Your task to perform on an android device: Open privacy settings Image 0: 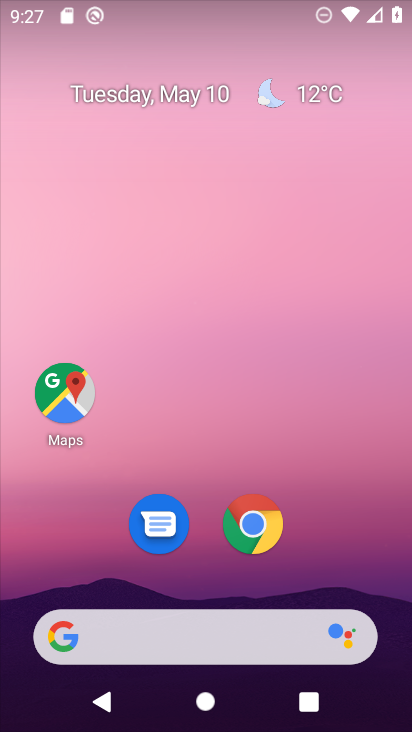
Step 0: drag from (326, 540) to (364, 60)
Your task to perform on an android device: Open privacy settings Image 1: 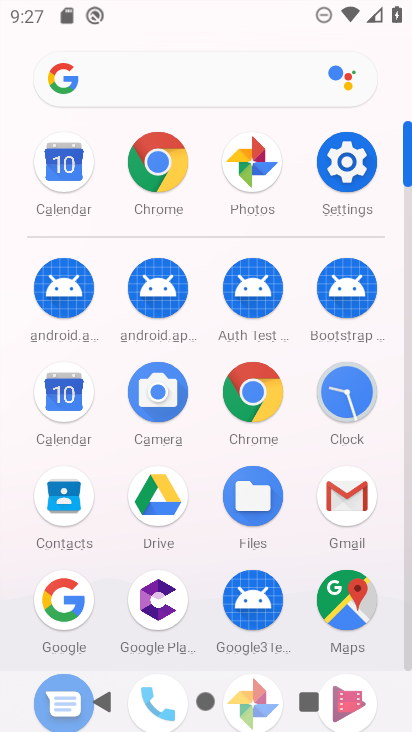
Step 1: click (348, 169)
Your task to perform on an android device: Open privacy settings Image 2: 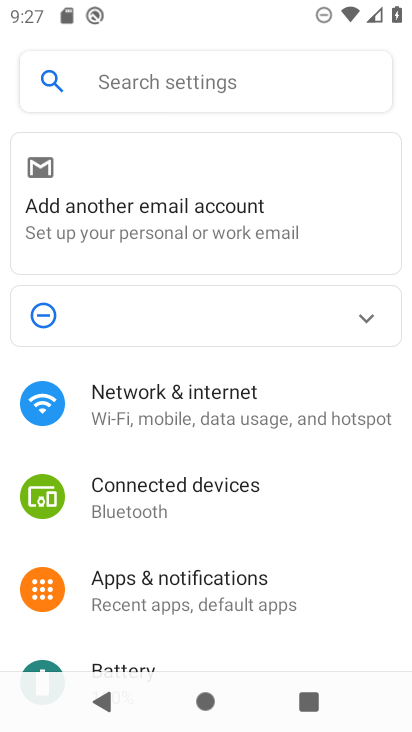
Step 2: drag from (224, 636) to (265, 139)
Your task to perform on an android device: Open privacy settings Image 3: 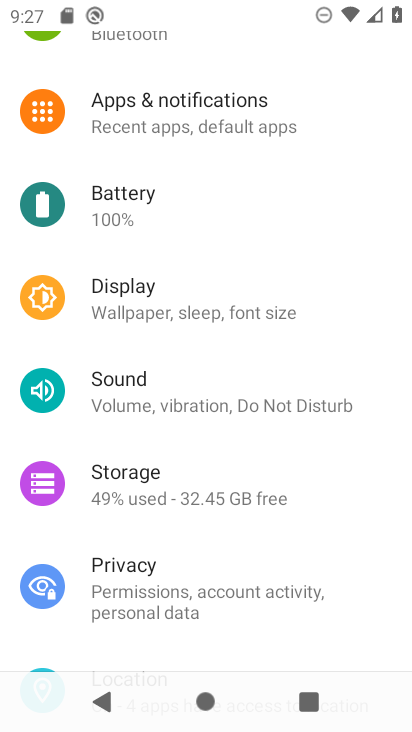
Step 3: click (150, 567)
Your task to perform on an android device: Open privacy settings Image 4: 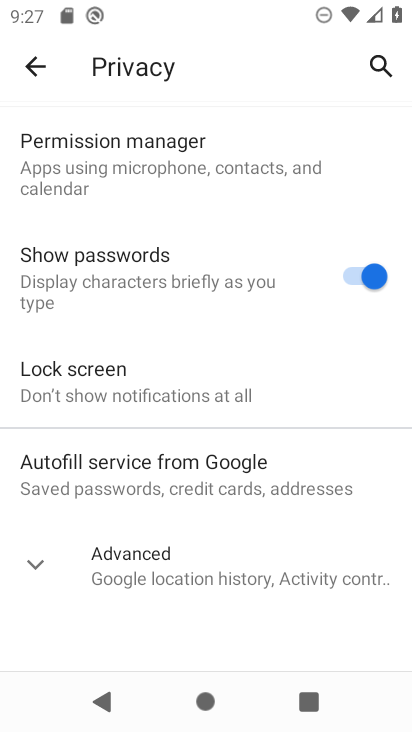
Step 4: task complete